Your task to perform on an android device: toggle wifi Image 0: 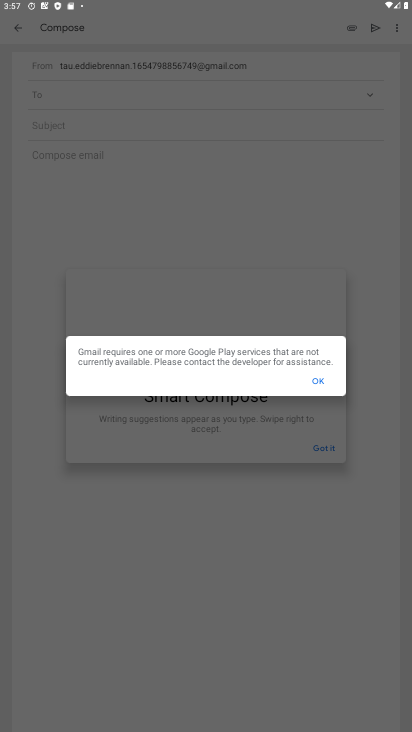
Step 0: press home button
Your task to perform on an android device: toggle wifi Image 1: 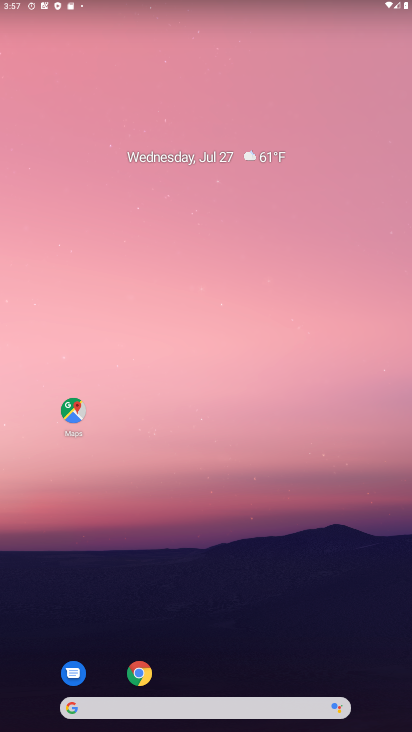
Step 1: drag from (28, 685) to (214, 67)
Your task to perform on an android device: toggle wifi Image 2: 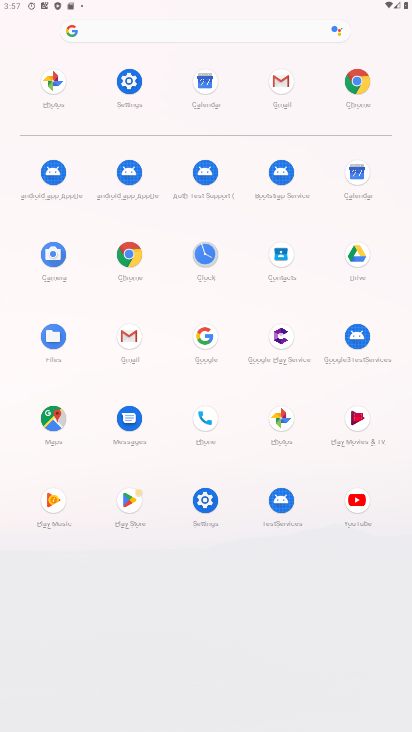
Step 2: click (197, 515)
Your task to perform on an android device: toggle wifi Image 3: 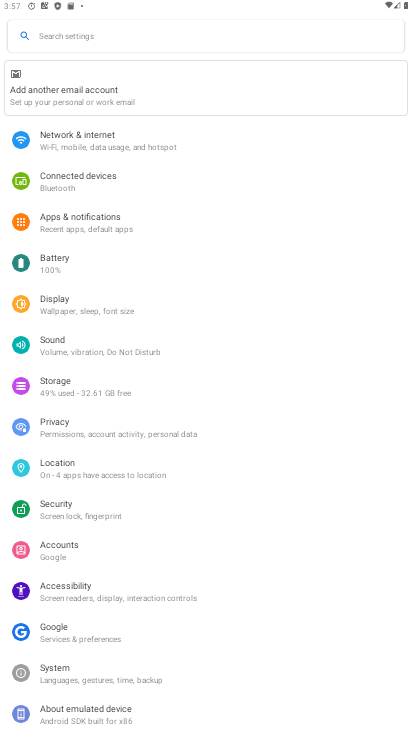
Step 3: click (89, 145)
Your task to perform on an android device: toggle wifi Image 4: 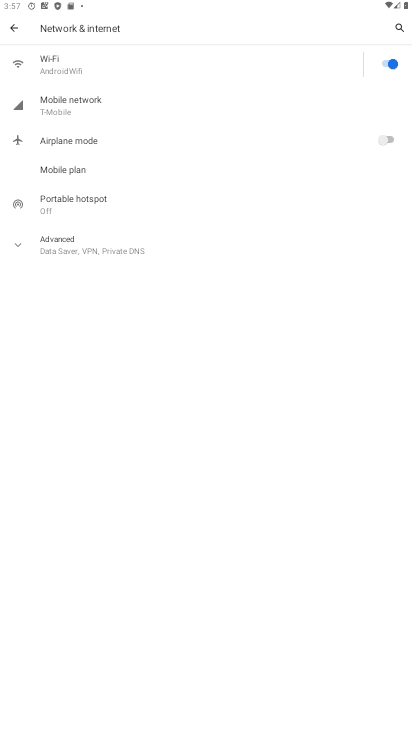
Step 4: task complete